Your task to perform on an android device: Turn on the flashlight Image 0: 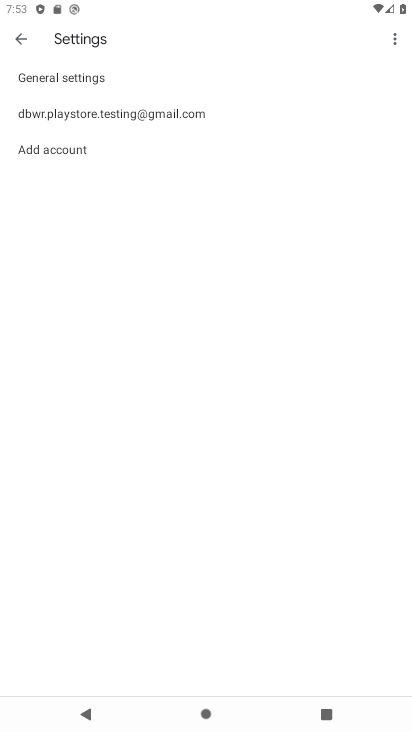
Step 0: press back button
Your task to perform on an android device: Turn on the flashlight Image 1: 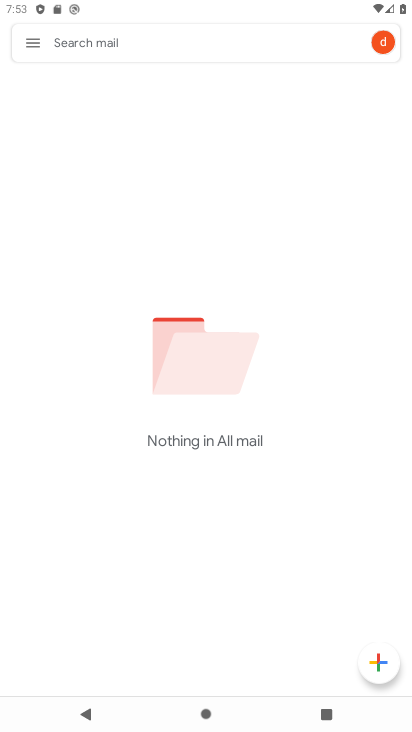
Step 1: press back button
Your task to perform on an android device: Turn on the flashlight Image 2: 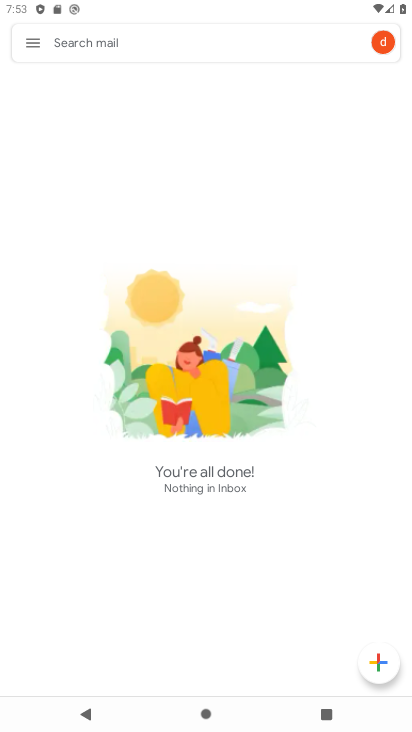
Step 2: press back button
Your task to perform on an android device: Turn on the flashlight Image 3: 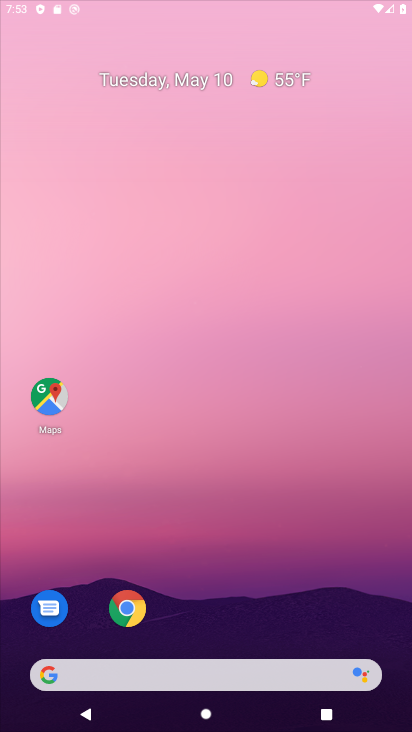
Step 3: press back button
Your task to perform on an android device: Turn on the flashlight Image 4: 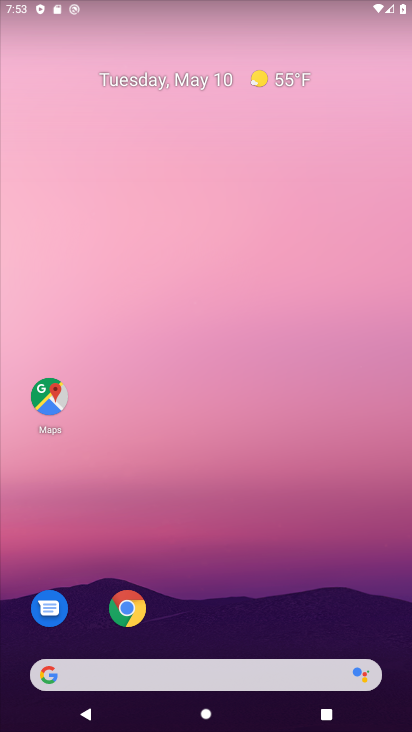
Step 4: drag from (214, 579) to (163, 140)
Your task to perform on an android device: Turn on the flashlight Image 5: 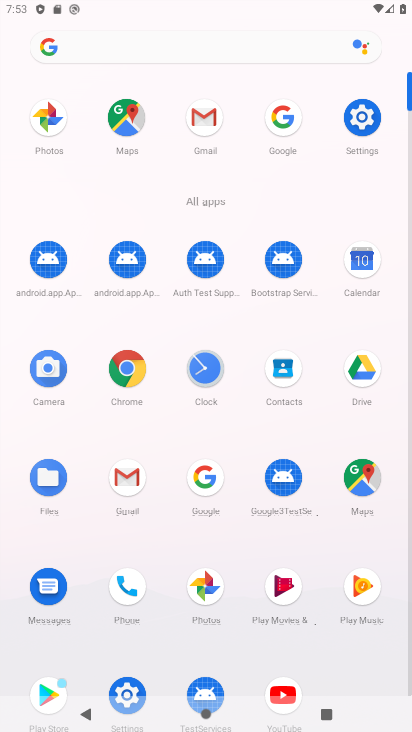
Step 5: click (364, 121)
Your task to perform on an android device: Turn on the flashlight Image 6: 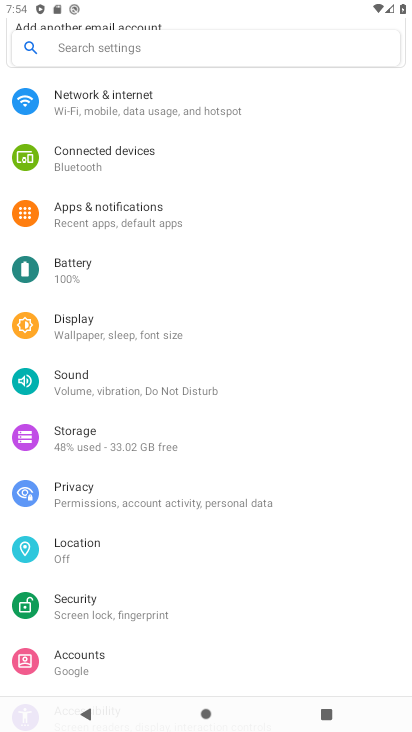
Step 6: click (173, 334)
Your task to perform on an android device: Turn on the flashlight Image 7: 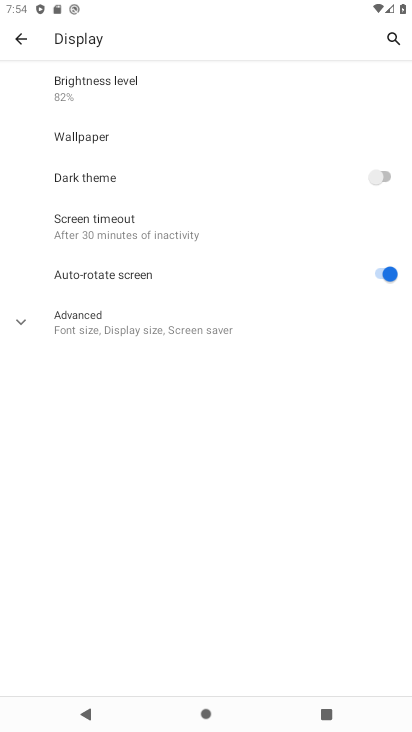
Step 7: click (94, 321)
Your task to perform on an android device: Turn on the flashlight Image 8: 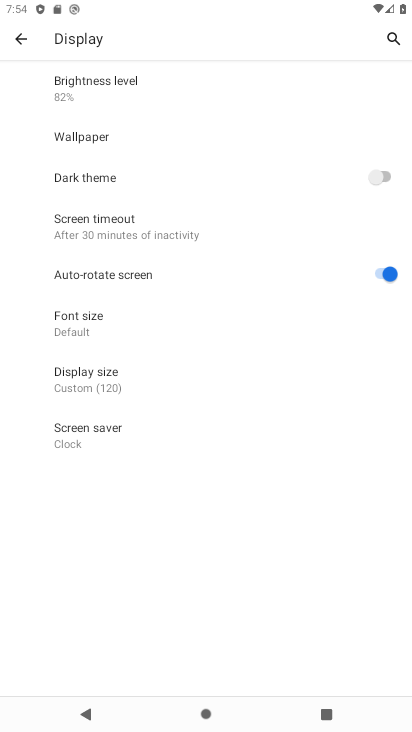
Step 8: press back button
Your task to perform on an android device: Turn on the flashlight Image 9: 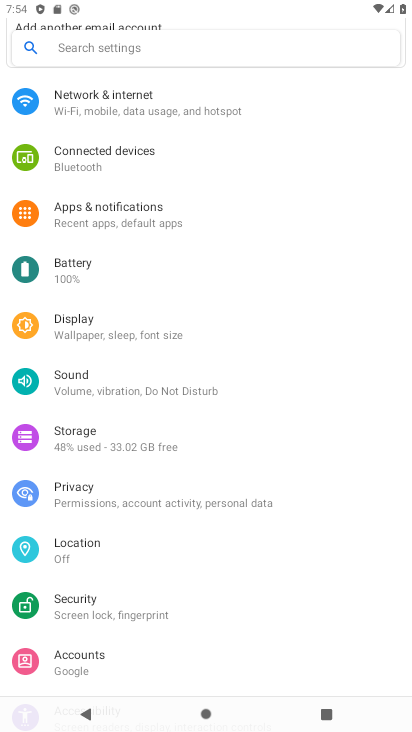
Step 9: drag from (129, 531) to (189, 425)
Your task to perform on an android device: Turn on the flashlight Image 10: 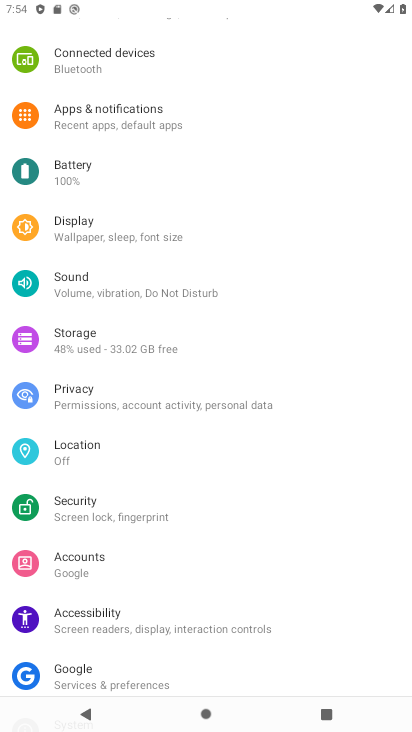
Step 10: drag from (160, 533) to (192, 462)
Your task to perform on an android device: Turn on the flashlight Image 11: 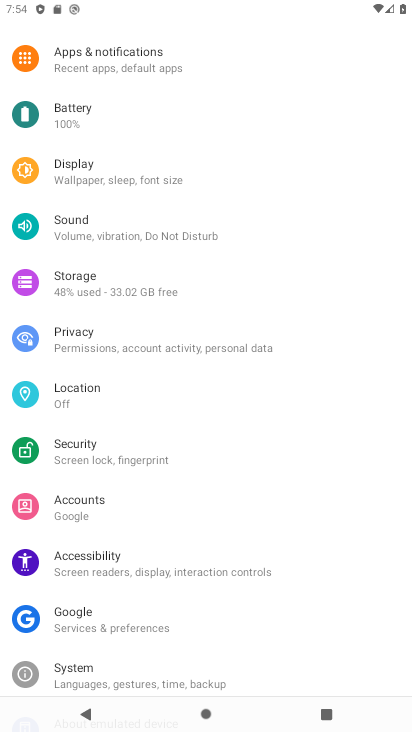
Step 11: click (138, 452)
Your task to perform on an android device: Turn on the flashlight Image 12: 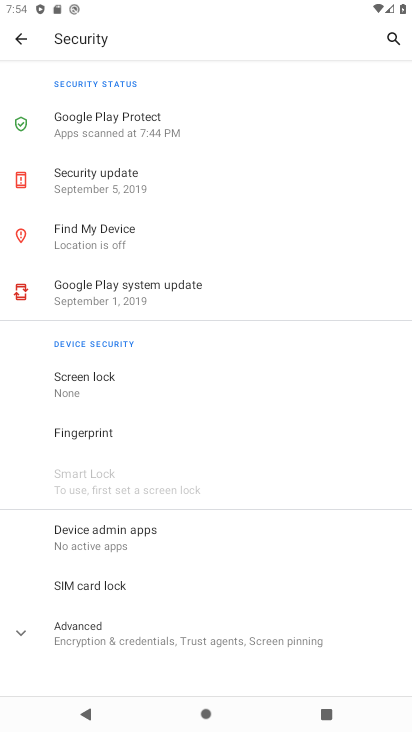
Step 12: drag from (194, 473) to (226, 365)
Your task to perform on an android device: Turn on the flashlight Image 13: 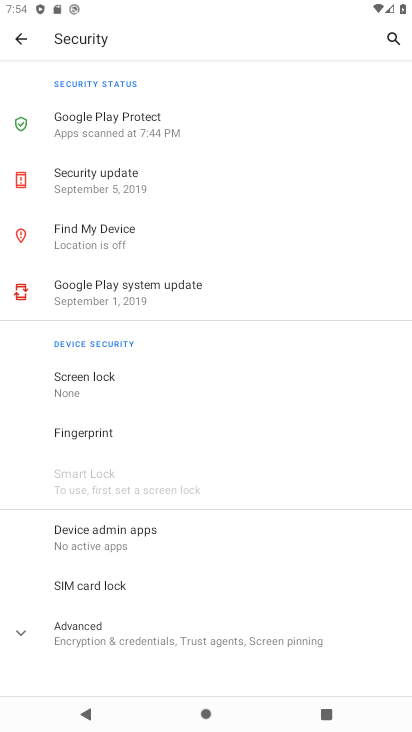
Step 13: click (191, 640)
Your task to perform on an android device: Turn on the flashlight Image 14: 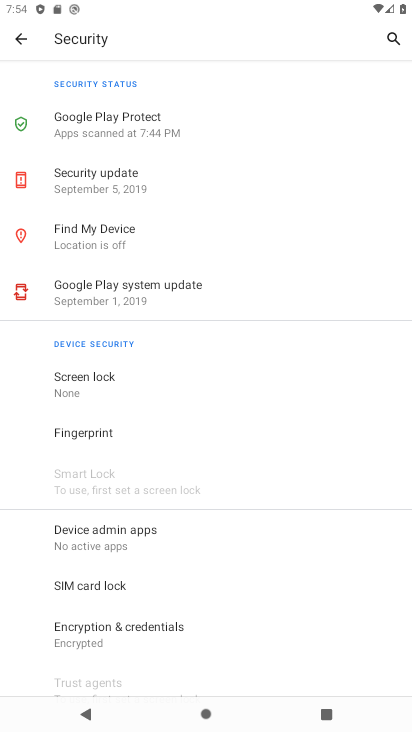
Step 14: press back button
Your task to perform on an android device: Turn on the flashlight Image 15: 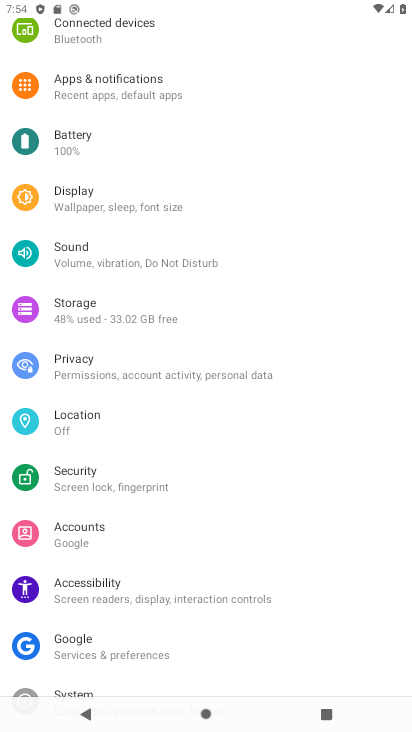
Step 15: drag from (131, 387) to (137, 315)
Your task to perform on an android device: Turn on the flashlight Image 16: 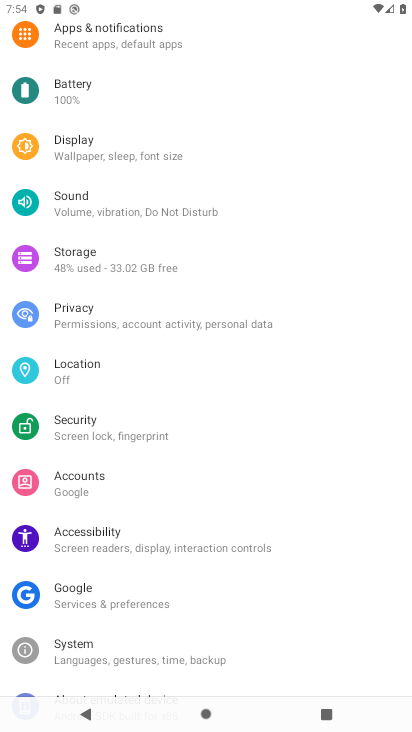
Step 16: drag from (118, 512) to (151, 407)
Your task to perform on an android device: Turn on the flashlight Image 17: 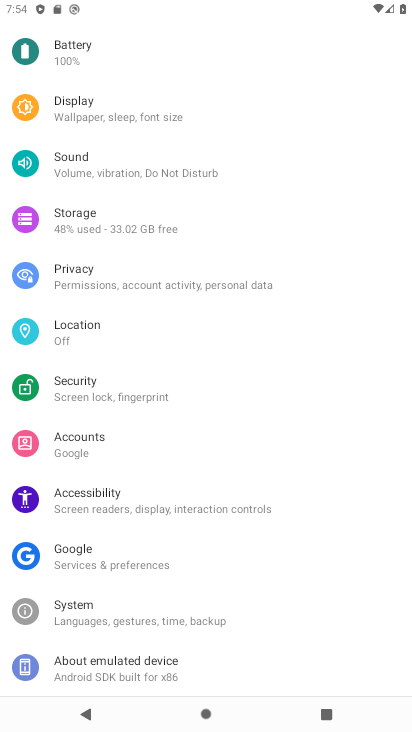
Step 17: click (156, 614)
Your task to perform on an android device: Turn on the flashlight Image 18: 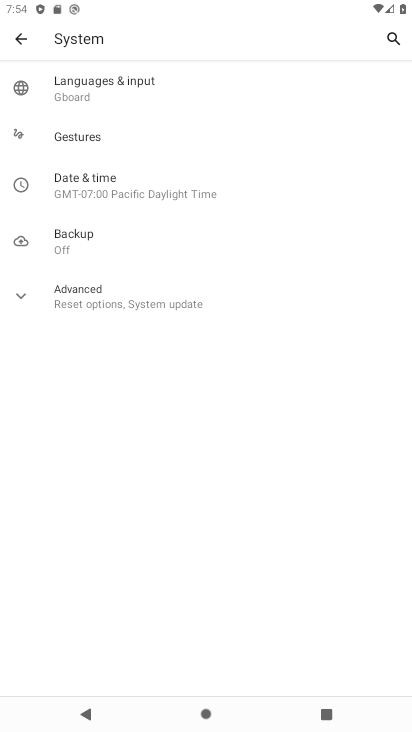
Step 18: click (136, 308)
Your task to perform on an android device: Turn on the flashlight Image 19: 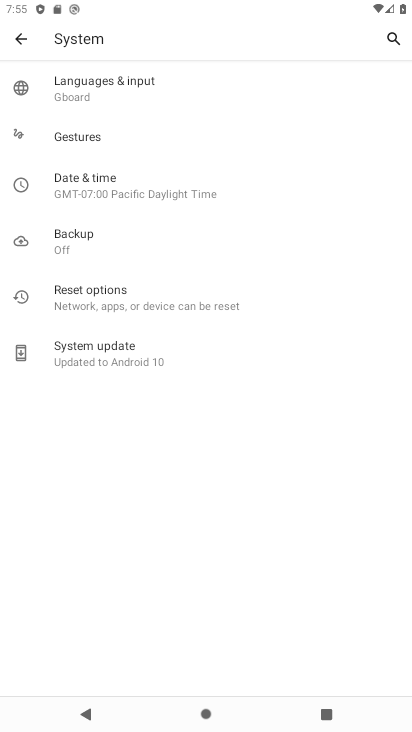
Step 19: press back button
Your task to perform on an android device: Turn on the flashlight Image 20: 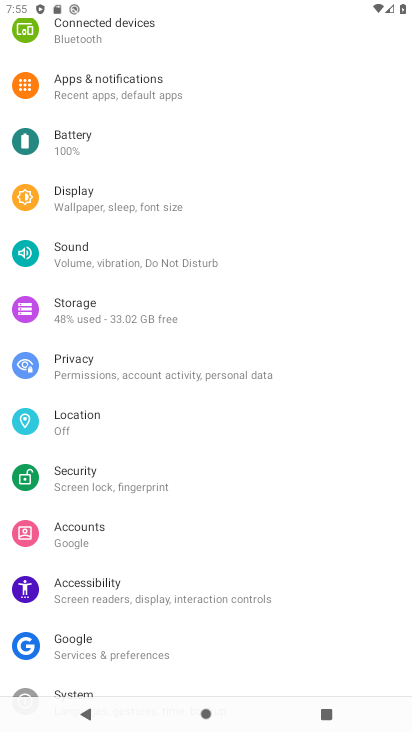
Step 20: click (118, 595)
Your task to perform on an android device: Turn on the flashlight Image 21: 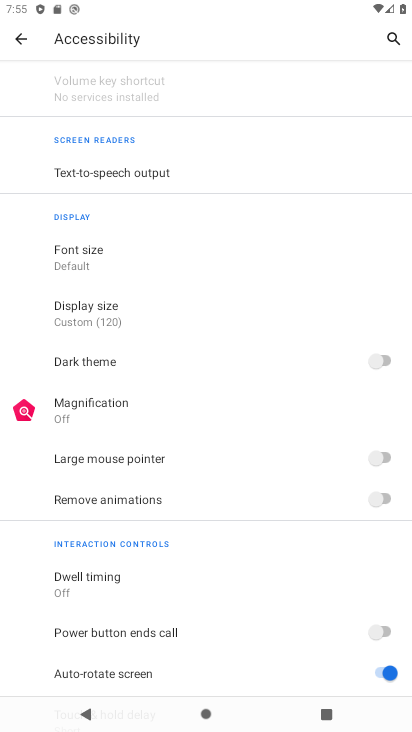
Step 21: drag from (162, 405) to (167, 325)
Your task to perform on an android device: Turn on the flashlight Image 22: 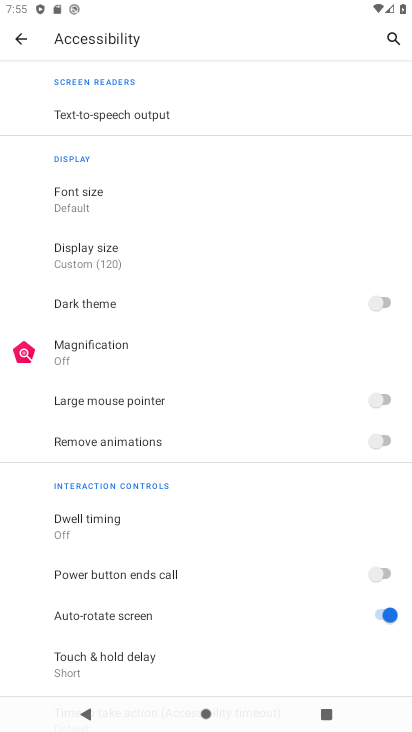
Step 22: press back button
Your task to perform on an android device: Turn on the flashlight Image 23: 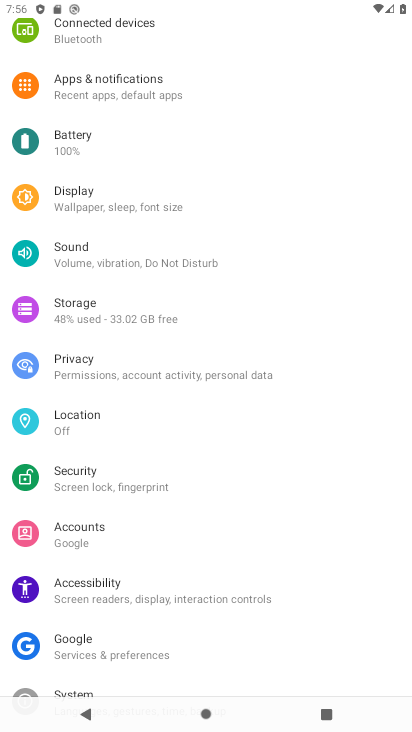
Step 23: click (123, 262)
Your task to perform on an android device: Turn on the flashlight Image 24: 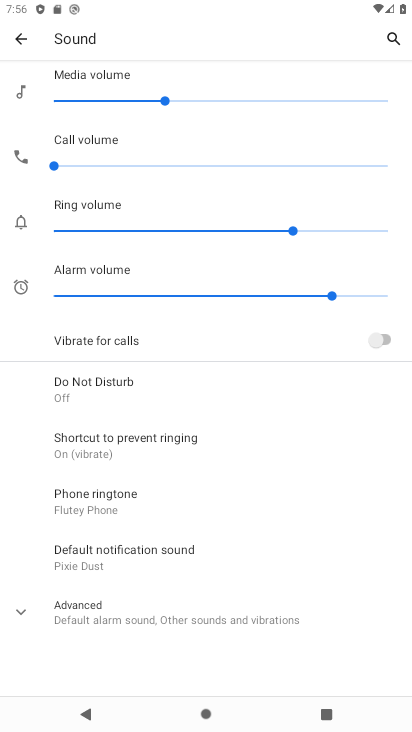
Step 24: task complete